Your task to perform on an android device: Open calendar and show me the third week of next month Image 0: 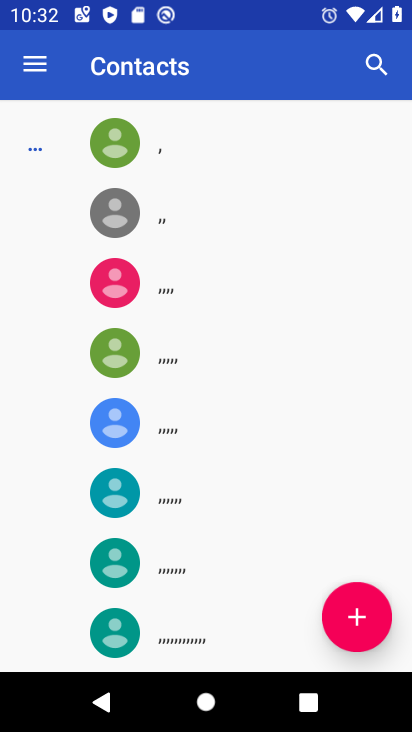
Step 0: press home button
Your task to perform on an android device: Open calendar and show me the third week of next month Image 1: 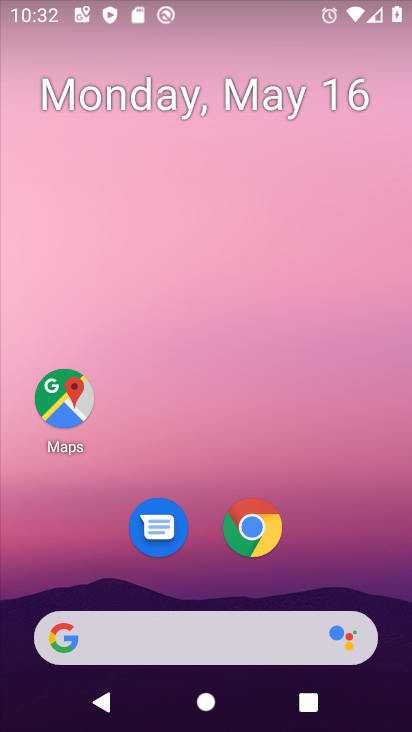
Step 1: drag from (353, 580) to (287, 5)
Your task to perform on an android device: Open calendar and show me the third week of next month Image 2: 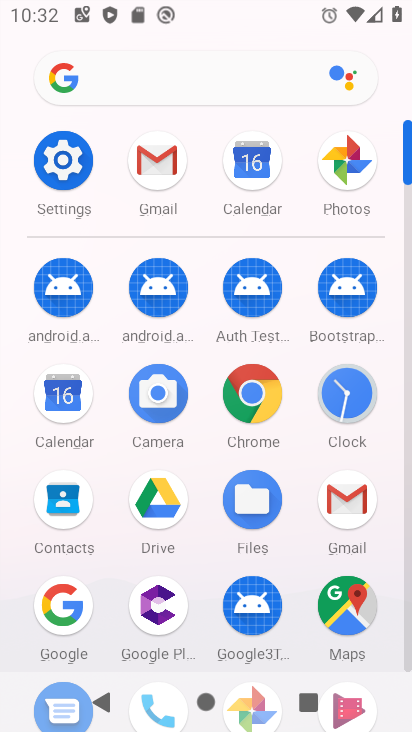
Step 2: click (247, 157)
Your task to perform on an android device: Open calendar and show me the third week of next month Image 3: 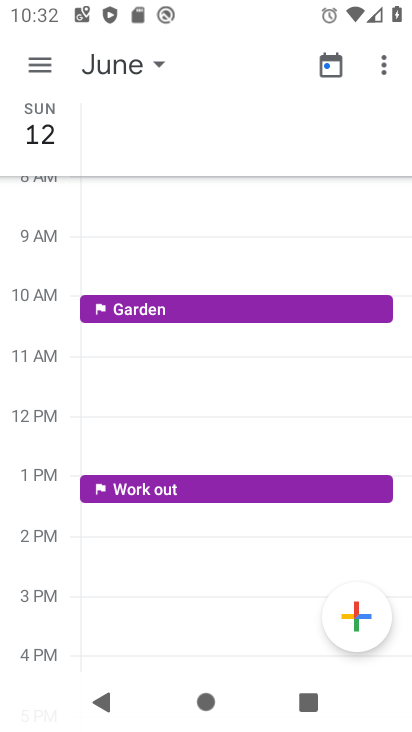
Step 3: click (42, 68)
Your task to perform on an android device: Open calendar and show me the third week of next month Image 4: 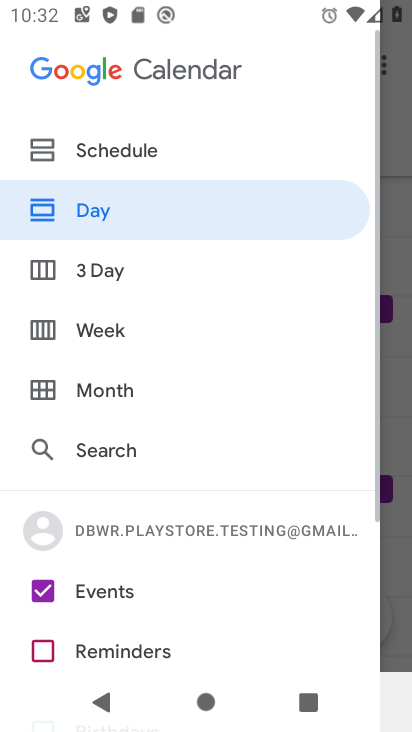
Step 4: click (79, 324)
Your task to perform on an android device: Open calendar and show me the third week of next month Image 5: 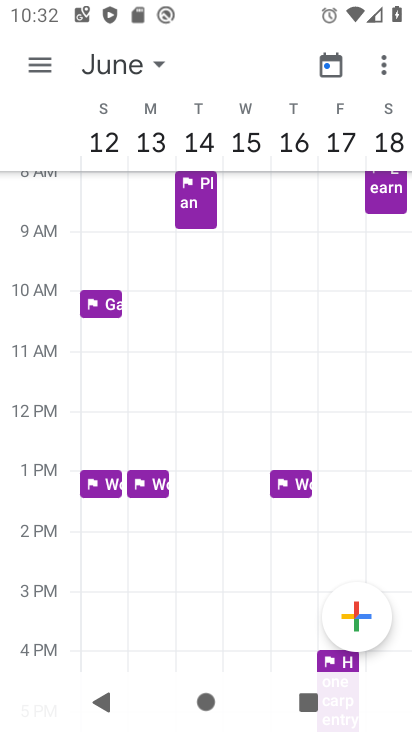
Step 5: task complete